Your task to perform on an android device: change text size in settings app Image 0: 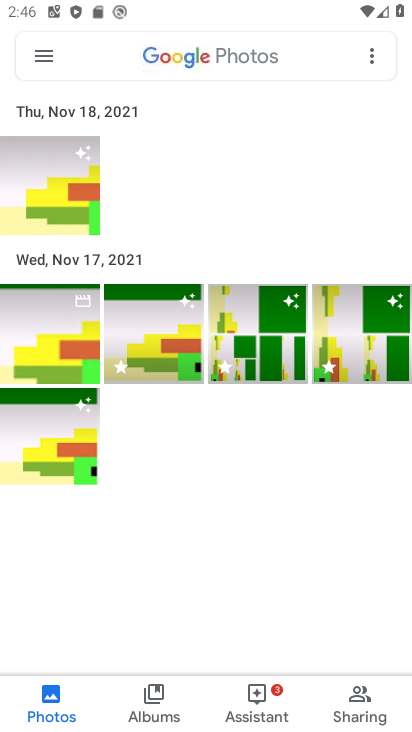
Step 0: press home button
Your task to perform on an android device: change text size in settings app Image 1: 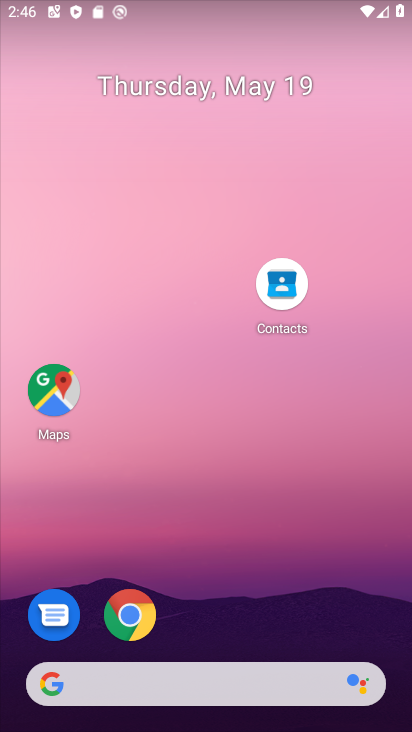
Step 1: drag from (242, 496) to (159, 632)
Your task to perform on an android device: change text size in settings app Image 2: 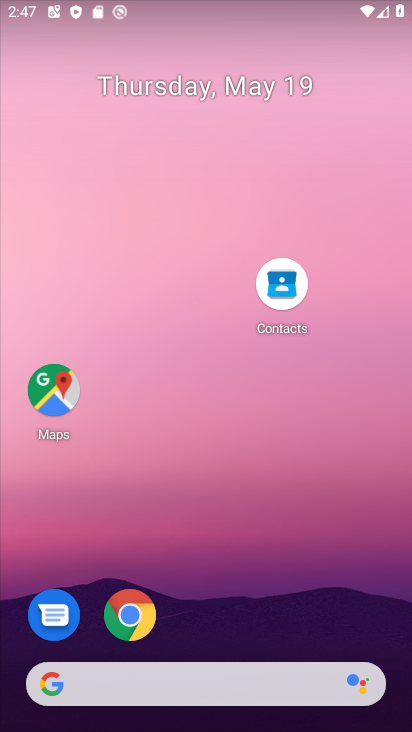
Step 2: drag from (221, 614) to (237, 102)
Your task to perform on an android device: change text size in settings app Image 3: 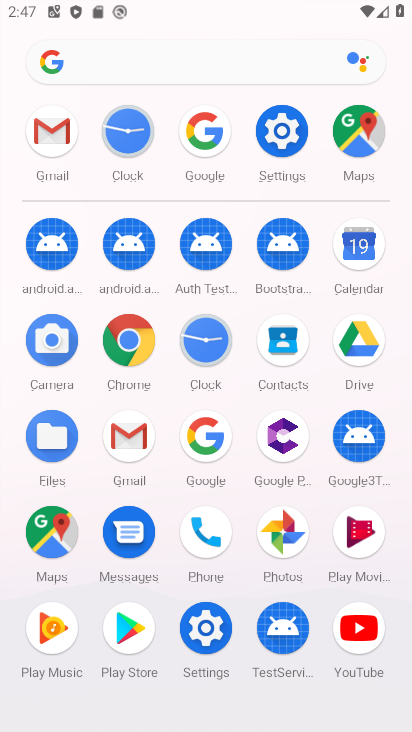
Step 3: click (280, 164)
Your task to perform on an android device: change text size in settings app Image 4: 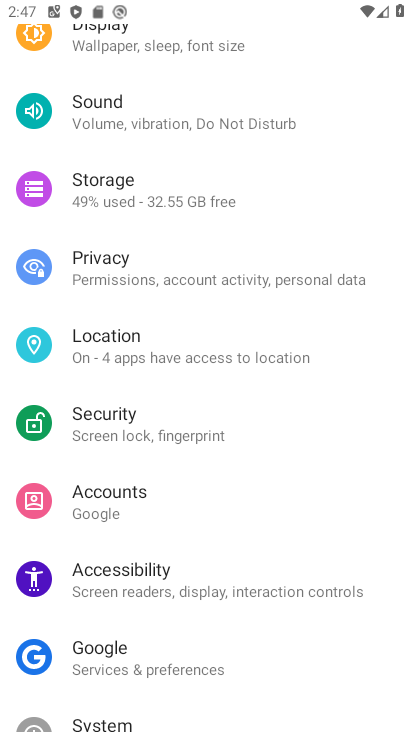
Step 4: drag from (259, 623) to (276, 272)
Your task to perform on an android device: change text size in settings app Image 5: 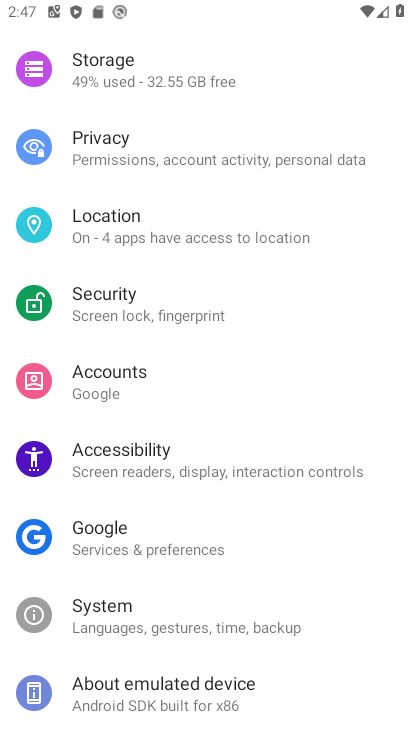
Step 5: drag from (291, 376) to (292, 217)
Your task to perform on an android device: change text size in settings app Image 6: 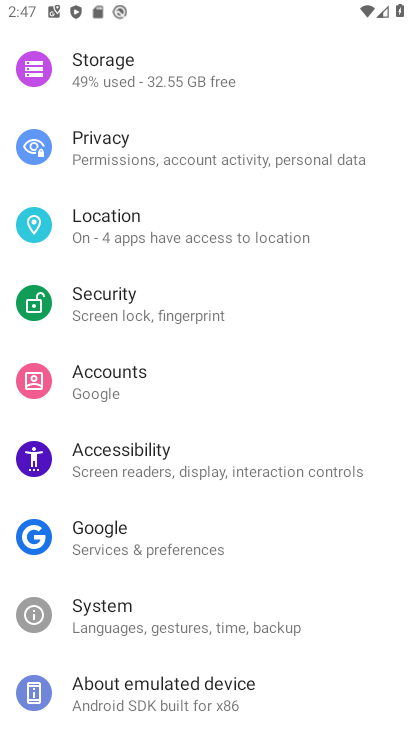
Step 6: drag from (298, 379) to (282, 661)
Your task to perform on an android device: change text size in settings app Image 7: 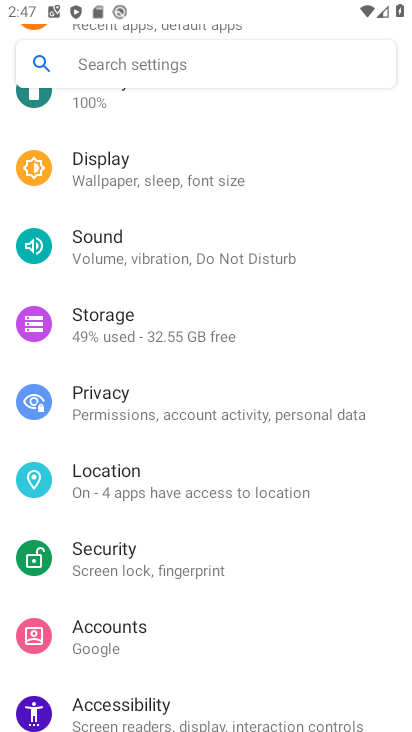
Step 7: drag from (235, 399) to (239, 688)
Your task to perform on an android device: change text size in settings app Image 8: 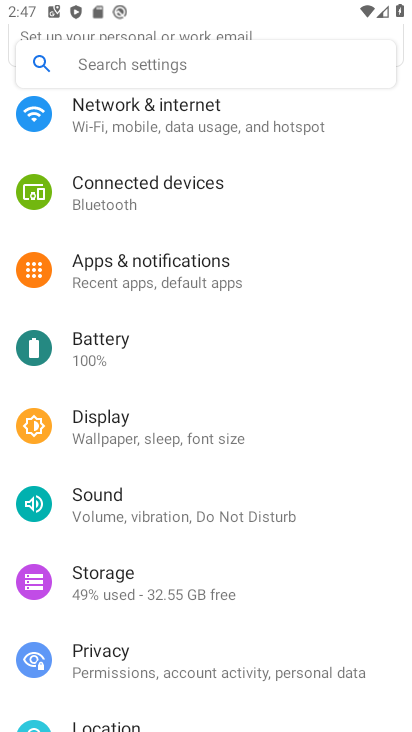
Step 8: drag from (184, 362) to (196, 535)
Your task to perform on an android device: change text size in settings app Image 9: 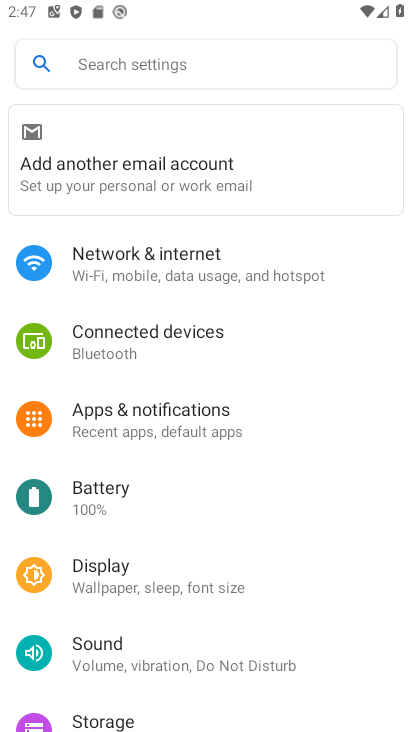
Step 9: click (187, 589)
Your task to perform on an android device: change text size in settings app Image 10: 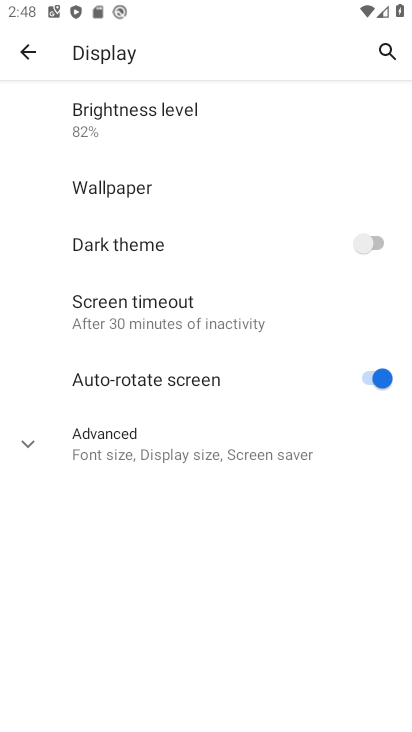
Step 10: click (154, 450)
Your task to perform on an android device: change text size in settings app Image 11: 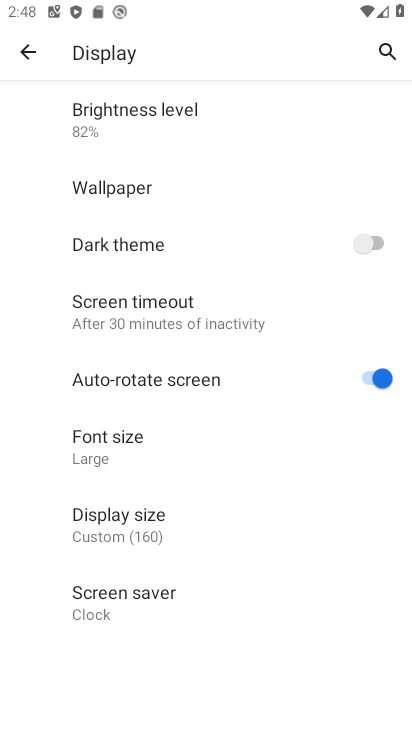
Step 11: click (141, 458)
Your task to perform on an android device: change text size in settings app Image 12: 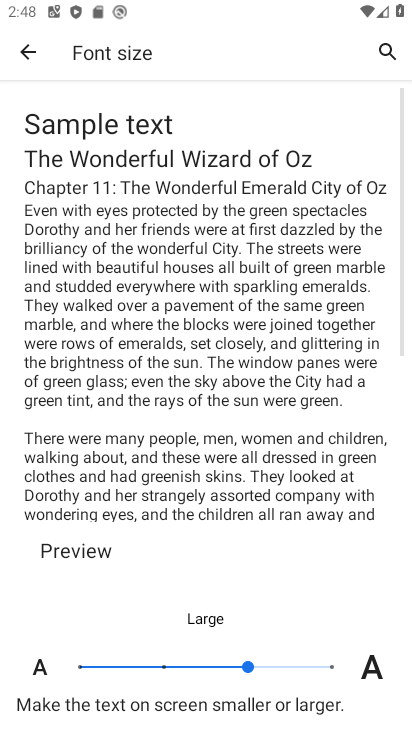
Step 12: click (161, 673)
Your task to perform on an android device: change text size in settings app Image 13: 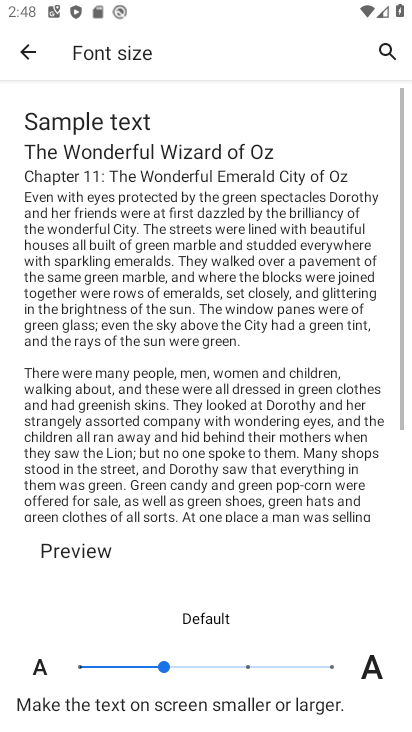
Step 13: task complete